Your task to perform on an android device: toggle translation in the chrome app Image 0: 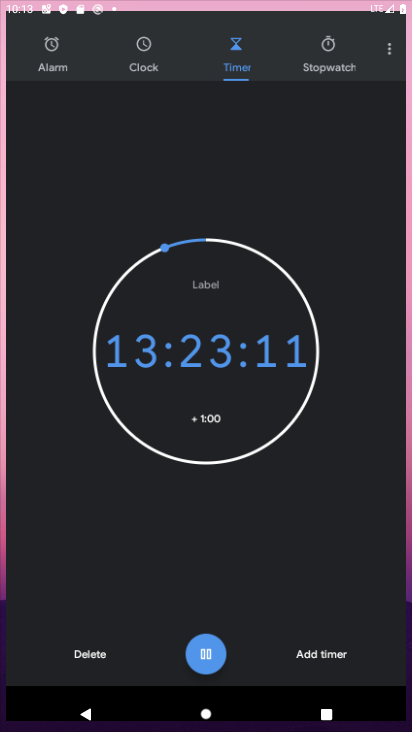
Step 0: drag from (311, 565) to (327, 22)
Your task to perform on an android device: toggle translation in the chrome app Image 1: 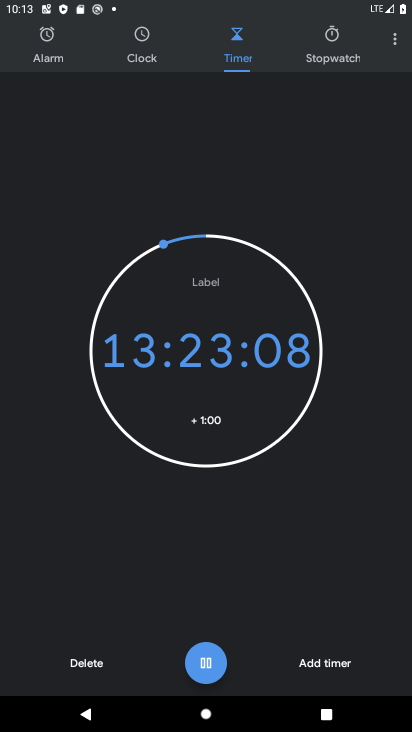
Step 1: press home button
Your task to perform on an android device: toggle translation in the chrome app Image 2: 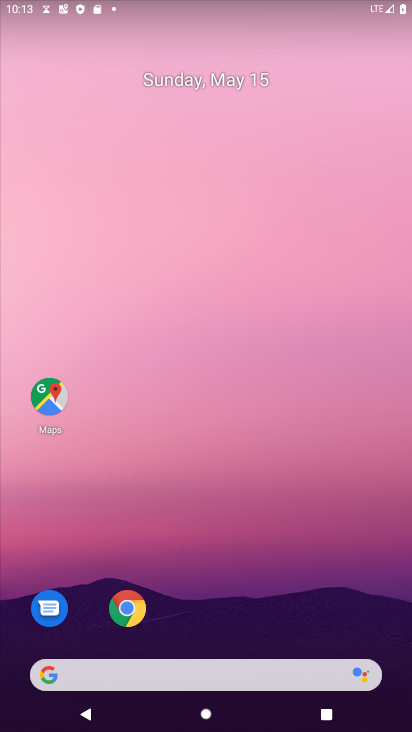
Step 2: drag from (294, 606) to (282, 71)
Your task to perform on an android device: toggle translation in the chrome app Image 3: 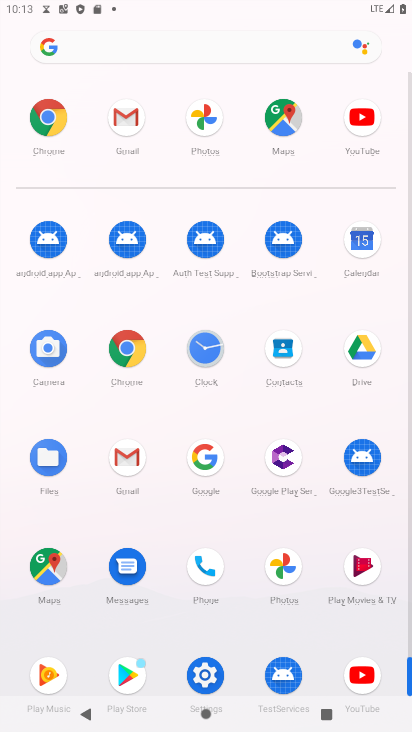
Step 3: click (58, 125)
Your task to perform on an android device: toggle translation in the chrome app Image 4: 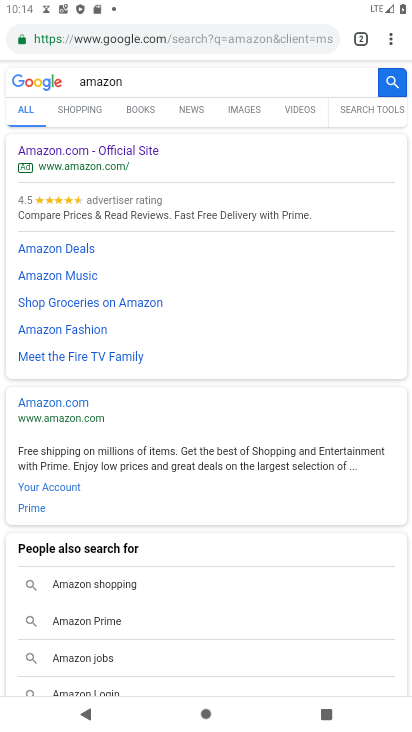
Step 4: press home button
Your task to perform on an android device: toggle translation in the chrome app Image 5: 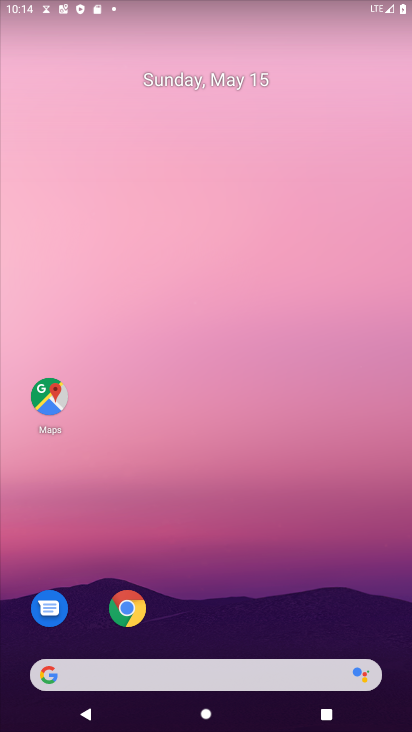
Step 5: click (113, 611)
Your task to perform on an android device: toggle translation in the chrome app Image 6: 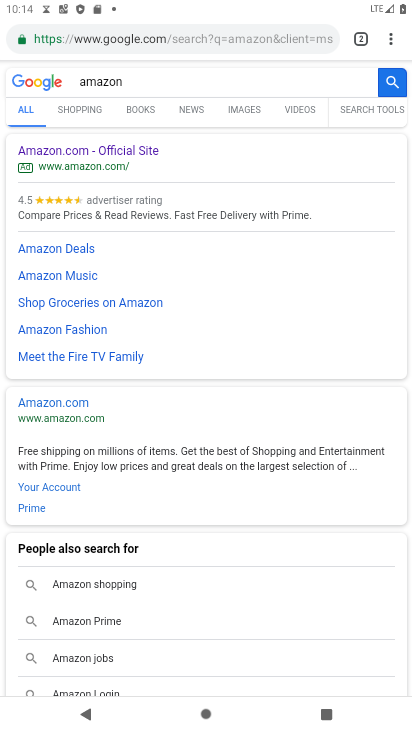
Step 6: drag from (389, 44) to (306, 443)
Your task to perform on an android device: toggle translation in the chrome app Image 7: 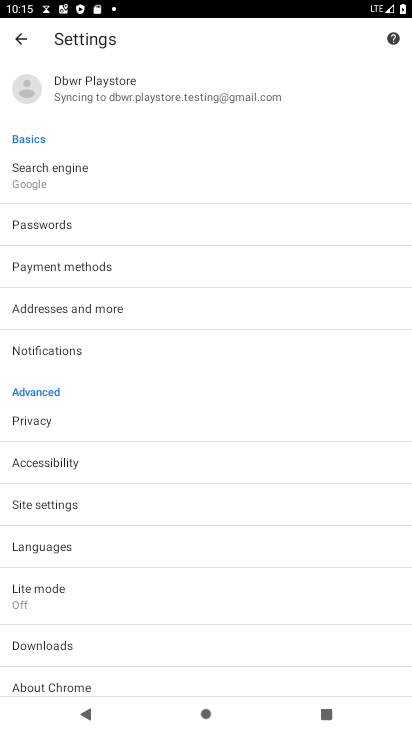
Step 7: drag from (77, 653) to (107, 360)
Your task to perform on an android device: toggle translation in the chrome app Image 8: 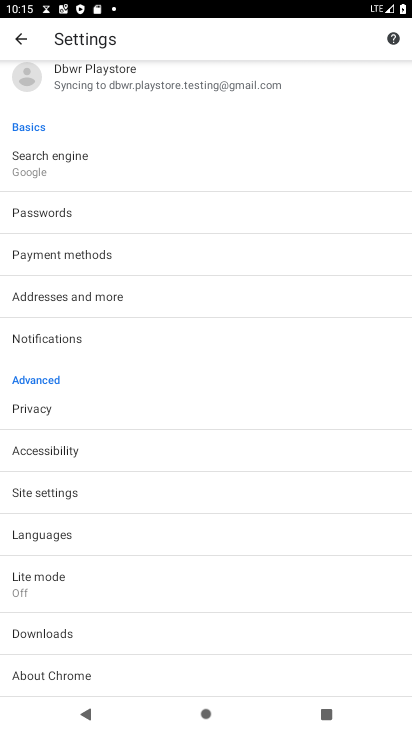
Step 8: click (105, 492)
Your task to perform on an android device: toggle translation in the chrome app Image 9: 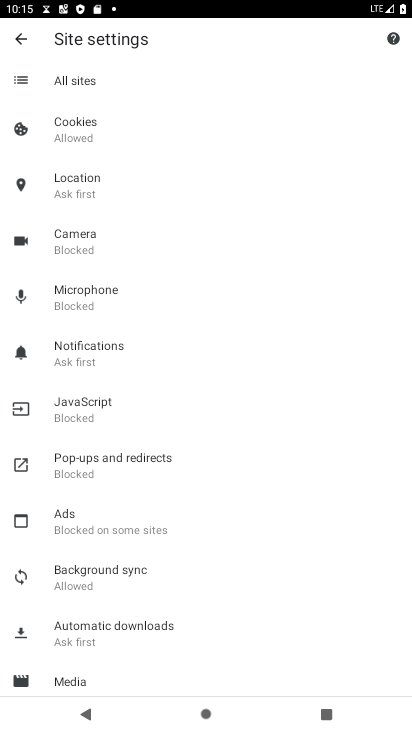
Step 9: click (23, 49)
Your task to perform on an android device: toggle translation in the chrome app Image 10: 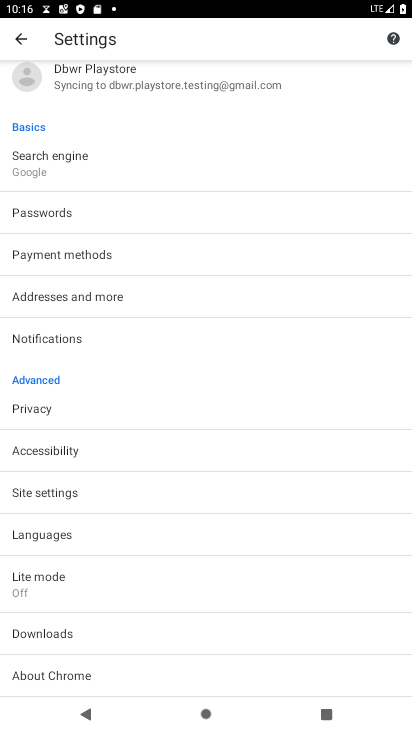
Step 10: click (111, 535)
Your task to perform on an android device: toggle translation in the chrome app Image 11: 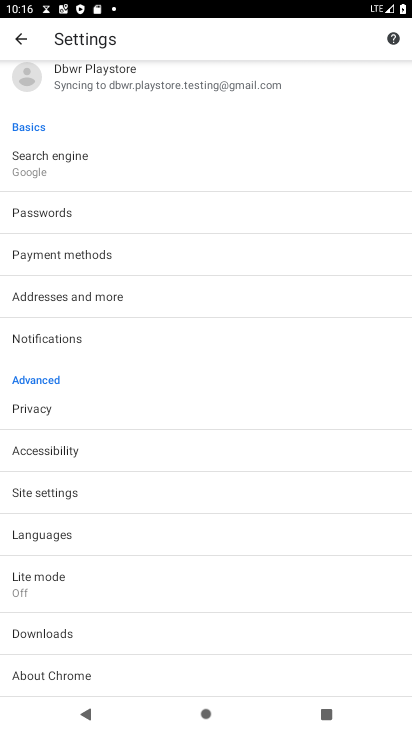
Step 11: click (104, 546)
Your task to perform on an android device: toggle translation in the chrome app Image 12: 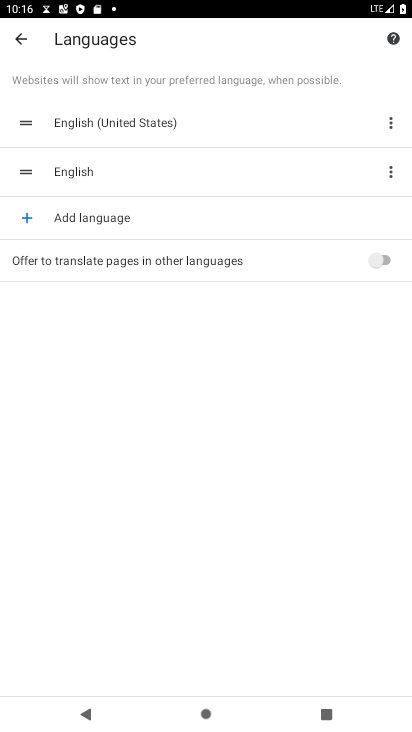
Step 12: click (380, 253)
Your task to perform on an android device: toggle translation in the chrome app Image 13: 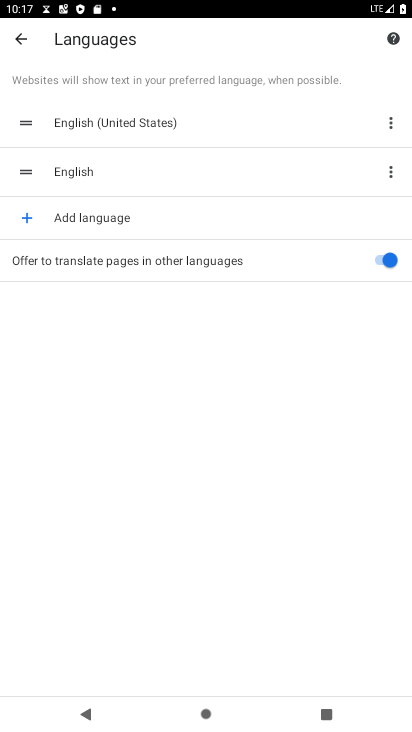
Step 13: task complete